Your task to perform on an android device: delete the emails in spam in the gmail app Image 0: 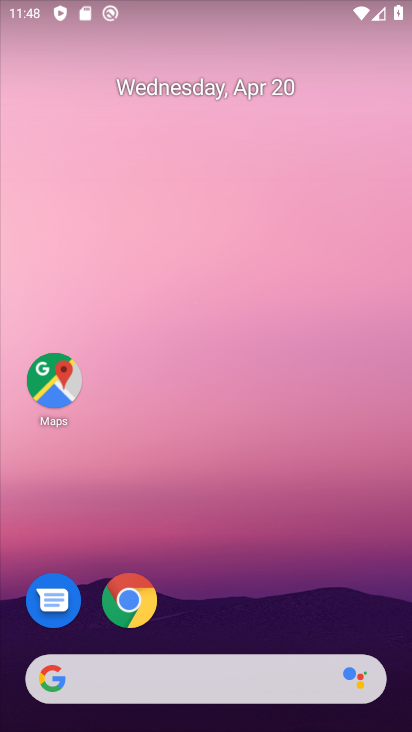
Step 0: drag from (254, 588) to (281, 28)
Your task to perform on an android device: delete the emails in spam in the gmail app Image 1: 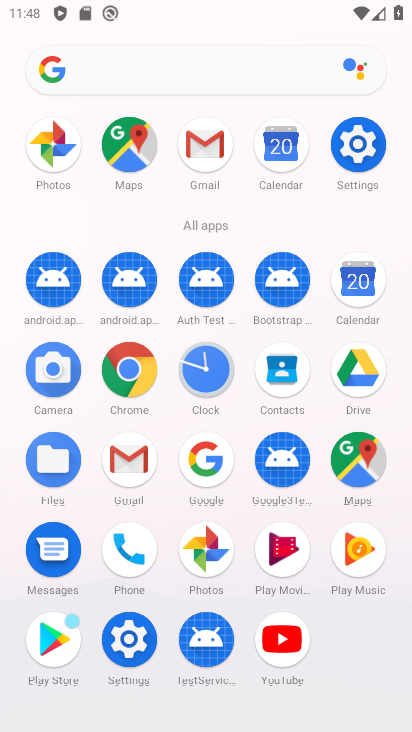
Step 1: click (209, 144)
Your task to perform on an android device: delete the emails in spam in the gmail app Image 2: 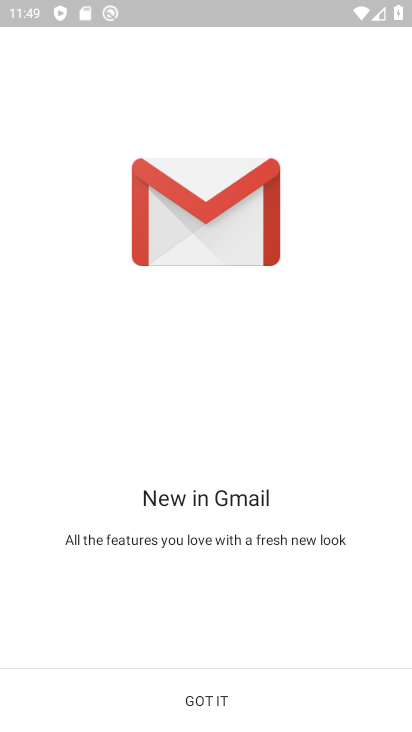
Step 2: click (229, 703)
Your task to perform on an android device: delete the emails in spam in the gmail app Image 3: 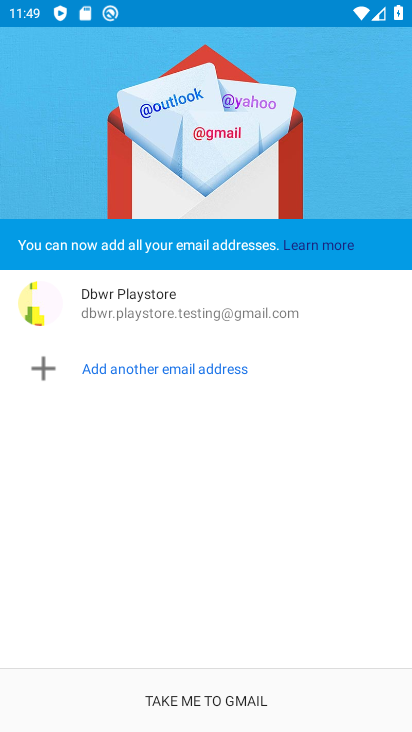
Step 3: click (229, 703)
Your task to perform on an android device: delete the emails in spam in the gmail app Image 4: 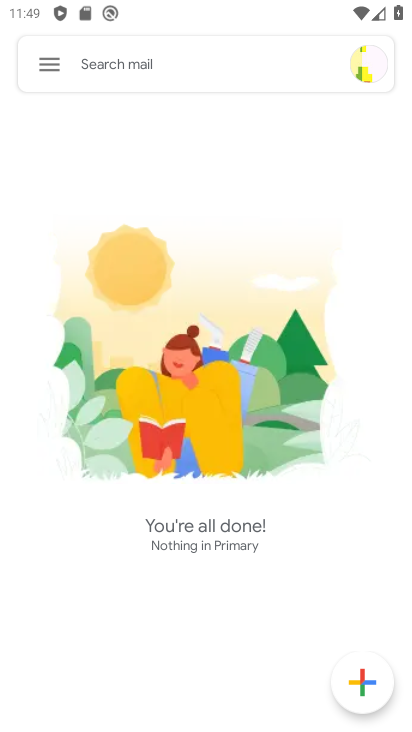
Step 4: click (51, 67)
Your task to perform on an android device: delete the emails in spam in the gmail app Image 5: 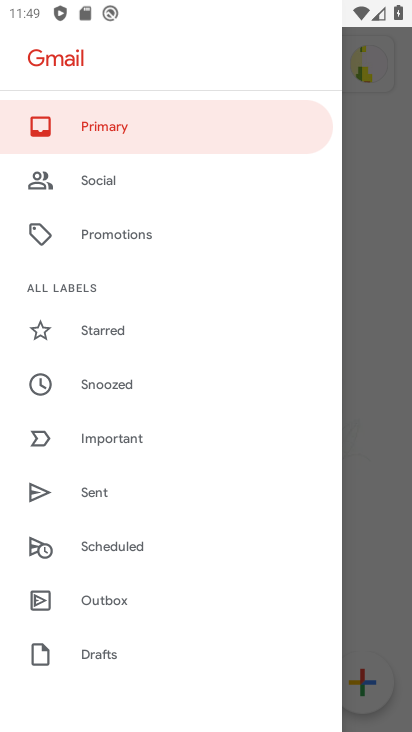
Step 5: drag from (203, 618) to (237, 149)
Your task to perform on an android device: delete the emails in spam in the gmail app Image 6: 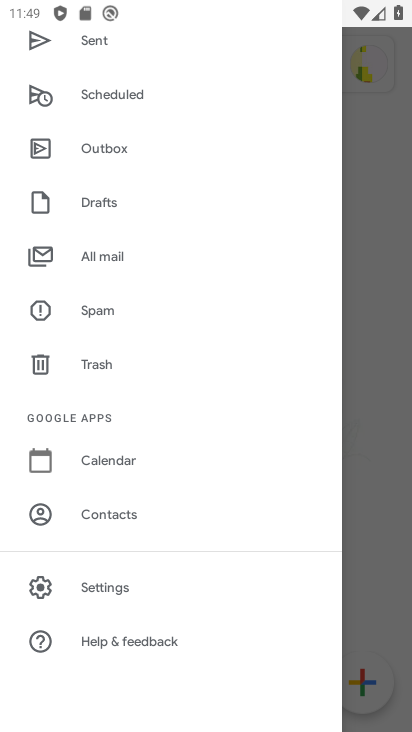
Step 6: click (200, 246)
Your task to perform on an android device: delete the emails in spam in the gmail app Image 7: 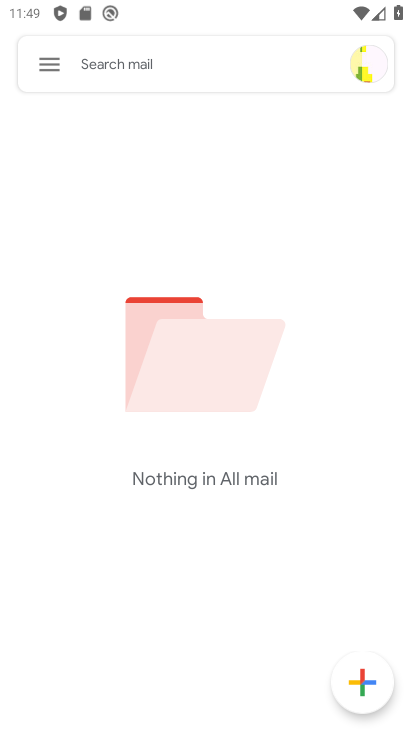
Step 7: task complete